Your task to perform on an android device: set the timer Image 0: 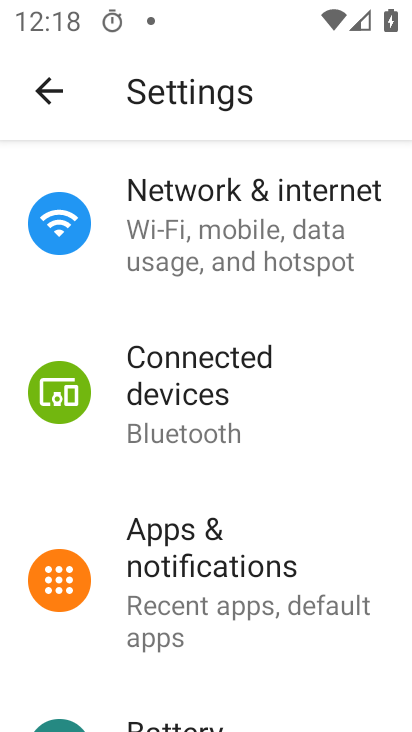
Step 0: press home button
Your task to perform on an android device: set the timer Image 1: 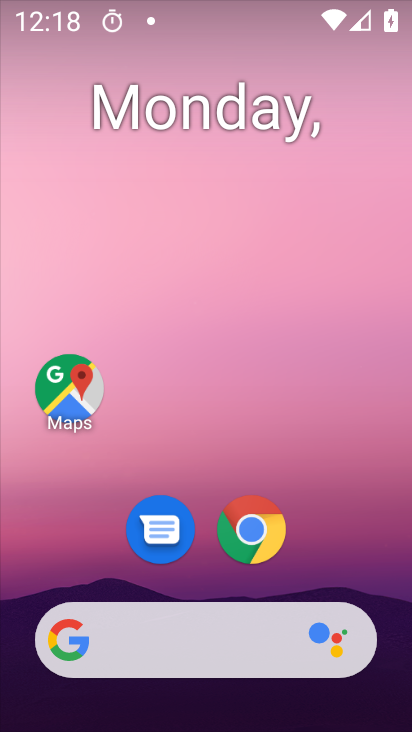
Step 1: drag from (152, 641) to (88, 11)
Your task to perform on an android device: set the timer Image 2: 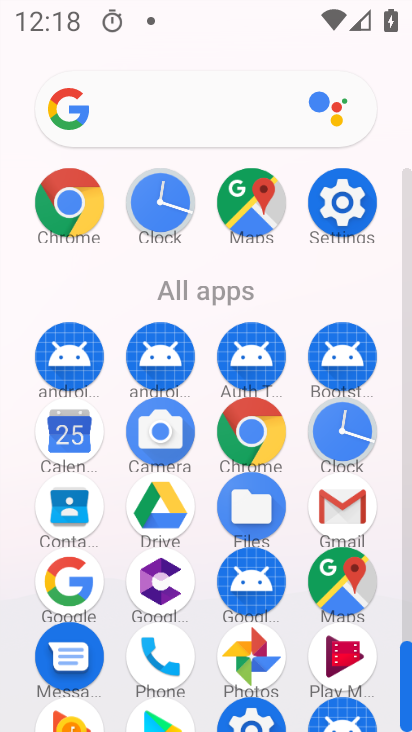
Step 2: click (326, 423)
Your task to perform on an android device: set the timer Image 3: 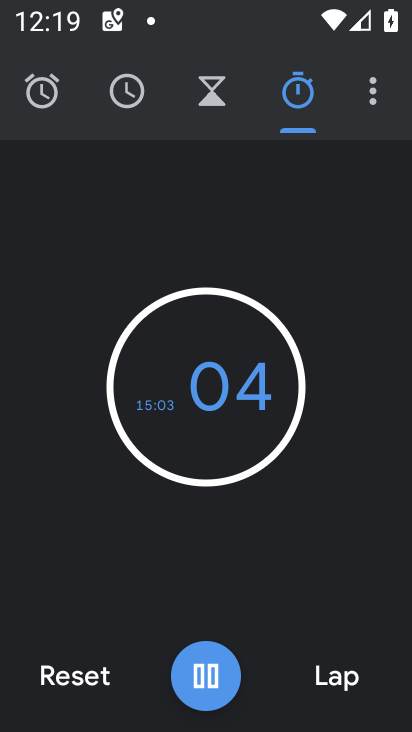
Step 3: task complete